Your task to perform on an android device: Go to display settings Image 0: 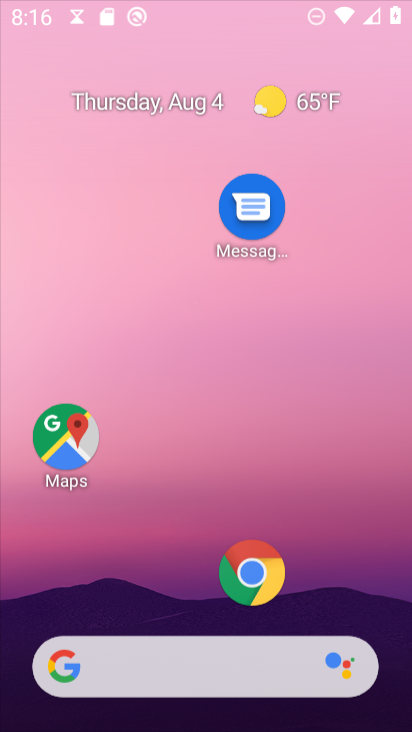
Step 0: press home button
Your task to perform on an android device: Go to display settings Image 1: 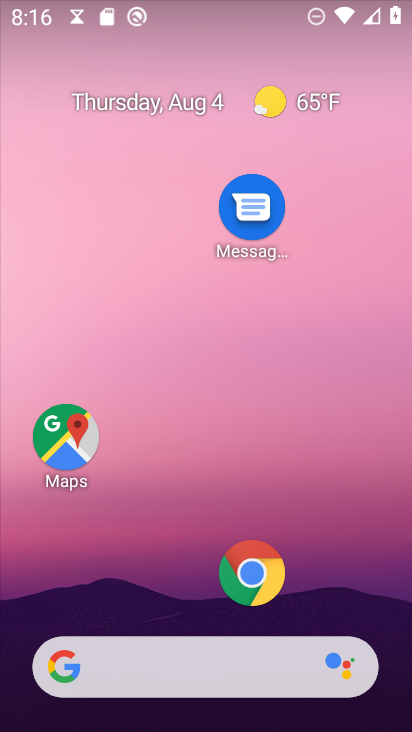
Step 1: drag from (171, 432) to (179, 85)
Your task to perform on an android device: Go to display settings Image 2: 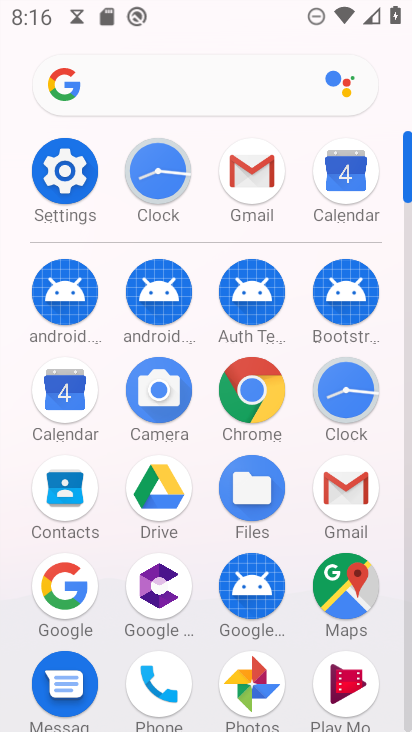
Step 2: click (80, 177)
Your task to perform on an android device: Go to display settings Image 3: 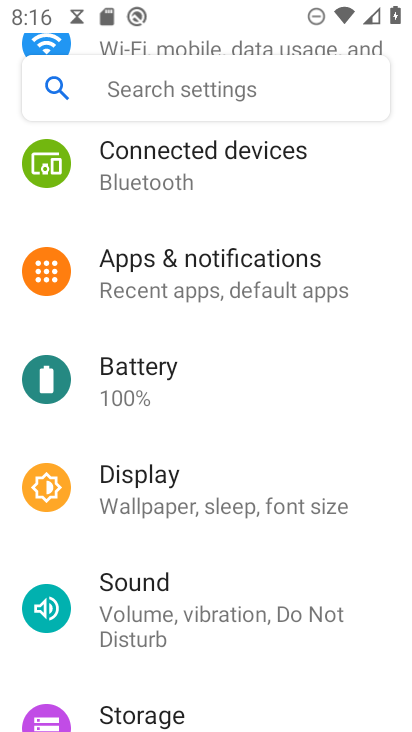
Step 3: click (172, 481)
Your task to perform on an android device: Go to display settings Image 4: 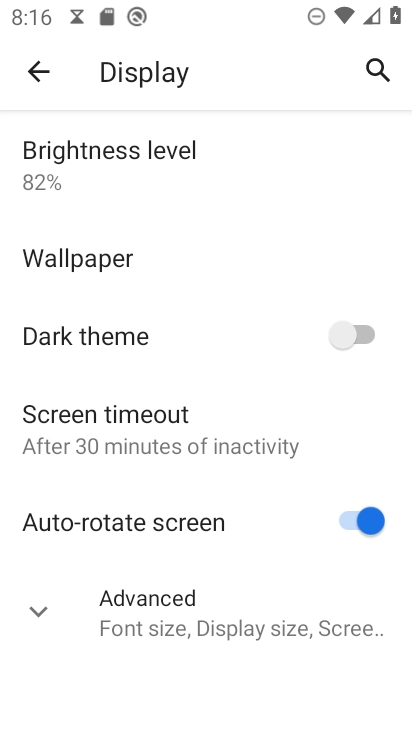
Step 4: task complete